Your task to perform on an android device: allow notifications from all sites in the chrome app Image 0: 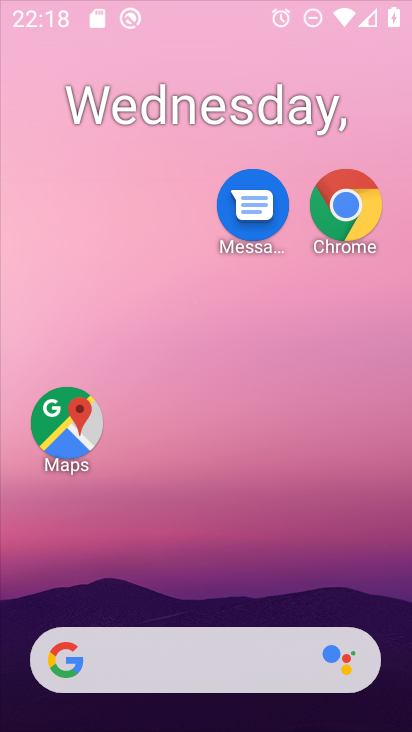
Step 0: drag from (215, 517) to (215, 261)
Your task to perform on an android device: allow notifications from all sites in the chrome app Image 1: 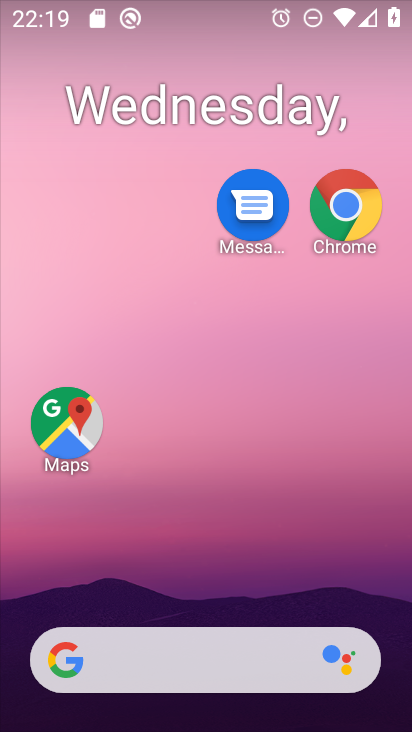
Step 1: drag from (185, 611) to (249, 196)
Your task to perform on an android device: allow notifications from all sites in the chrome app Image 2: 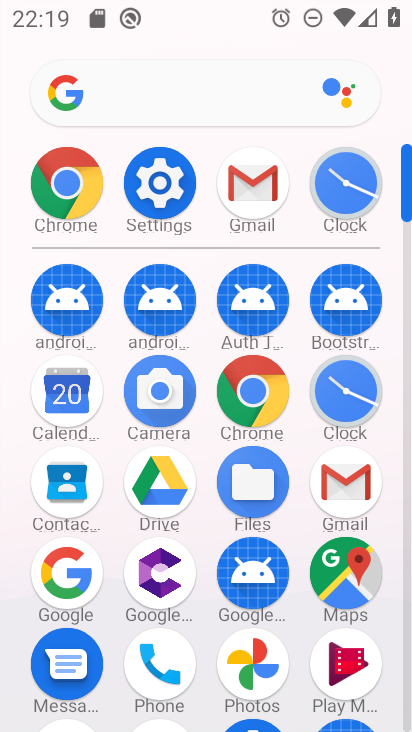
Step 2: click (233, 385)
Your task to perform on an android device: allow notifications from all sites in the chrome app Image 3: 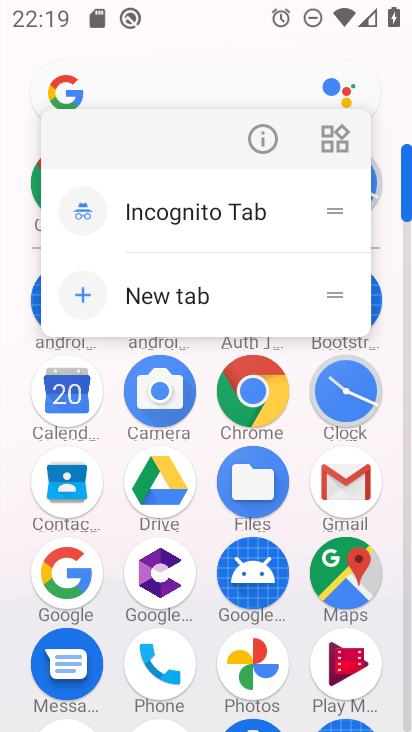
Step 3: click (262, 146)
Your task to perform on an android device: allow notifications from all sites in the chrome app Image 4: 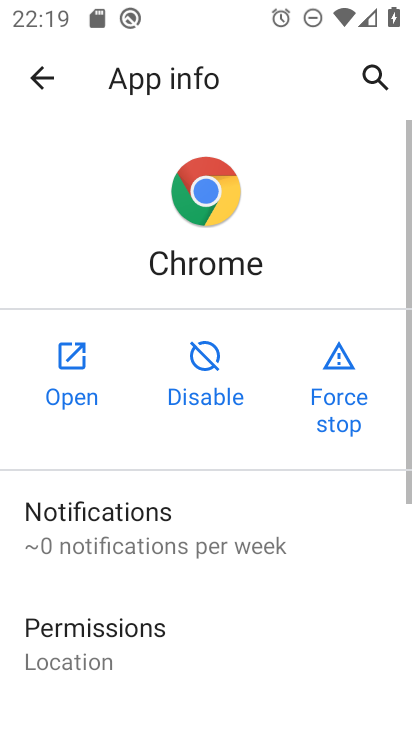
Step 4: click (89, 386)
Your task to perform on an android device: allow notifications from all sites in the chrome app Image 5: 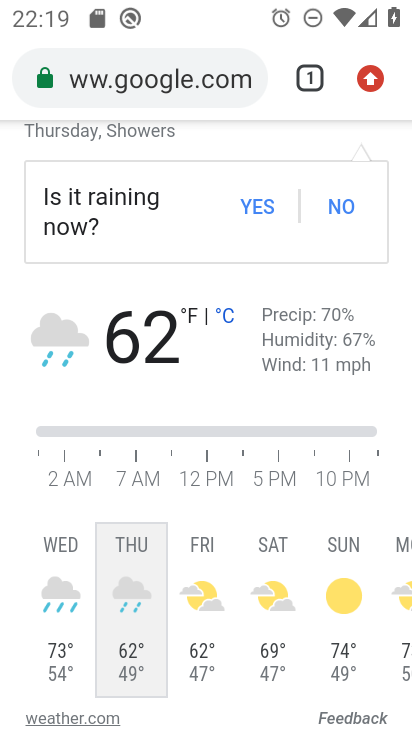
Step 5: drag from (365, 87) to (116, 617)
Your task to perform on an android device: allow notifications from all sites in the chrome app Image 6: 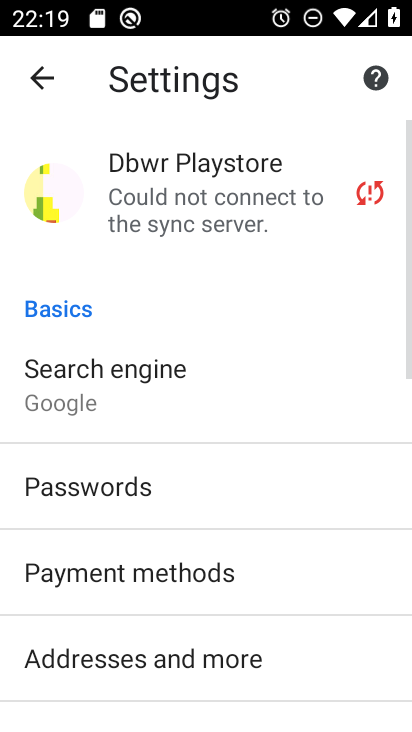
Step 6: drag from (234, 577) to (371, 31)
Your task to perform on an android device: allow notifications from all sites in the chrome app Image 7: 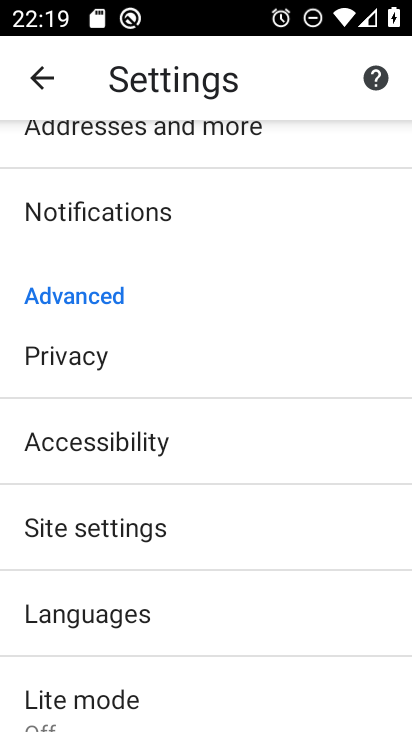
Step 7: drag from (100, 449) to (277, 157)
Your task to perform on an android device: allow notifications from all sites in the chrome app Image 8: 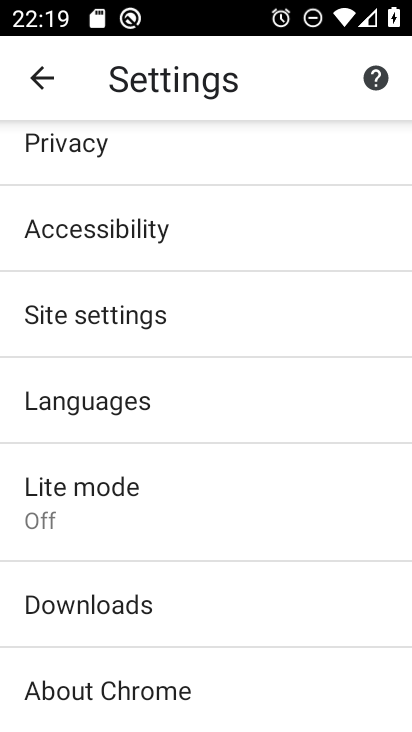
Step 8: click (160, 297)
Your task to perform on an android device: allow notifications from all sites in the chrome app Image 9: 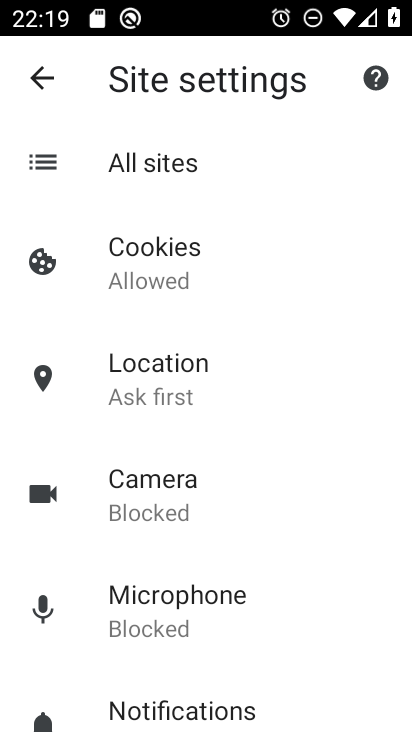
Step 9: drag from (254, 555) to (301, 272)
Your task to perform on an android device: allow notifications from all sites in the chrome app Image 10: 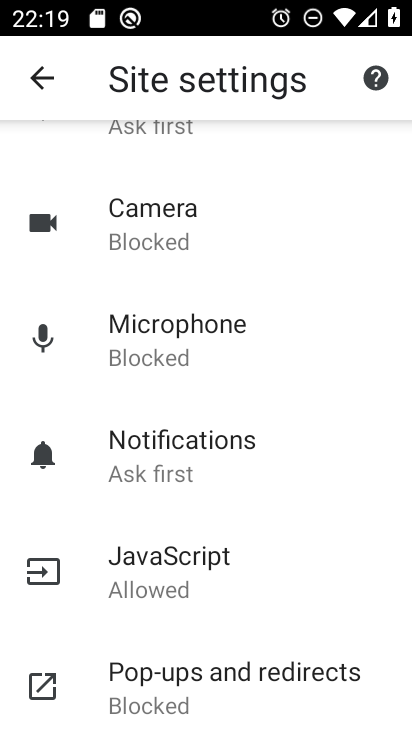
Step 10: click (192, 445)
Your task to perform on an android device: allow notifications from all sites in the chrome app Image 11: 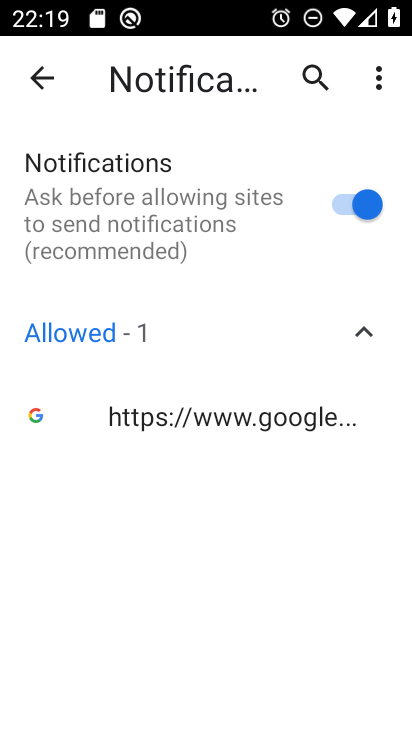
Step 11: task complete